Your task to perform on an android device: Go to Google maps Image 0: 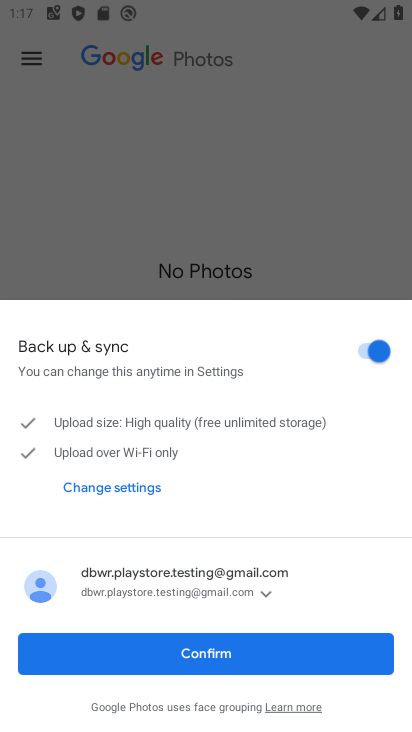
Step 0: press home button
Your task to perform on an android device: Go to Google maps Image 1: 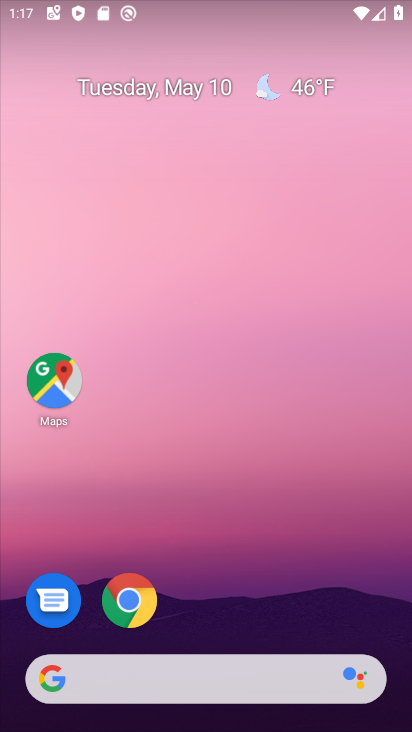
Step 1: click (50, 357)
Your task to perform on an android device: Go to Google maps Image 2: 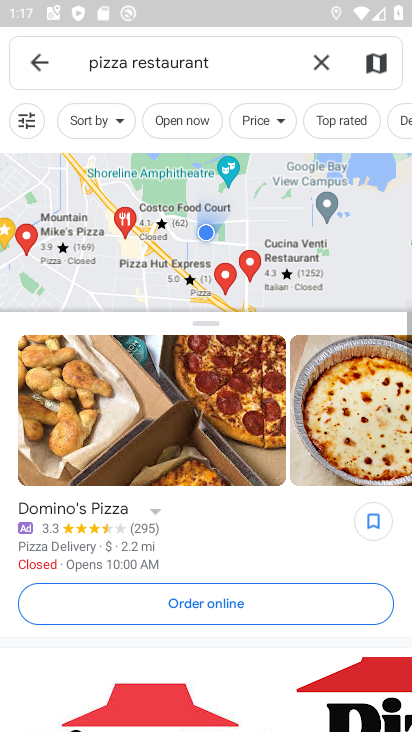
Step 2: click (50, 62)
Your task to perform on an android device: Go to Google maps Image 3: 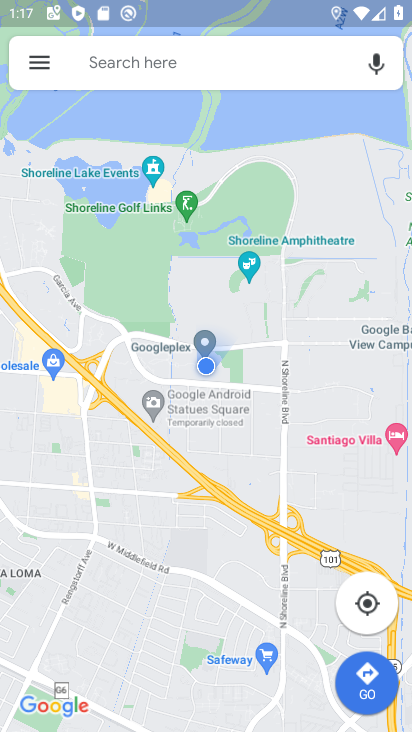
Step 3: task complete